Your task to perform on an android device: check battery use Image 0: 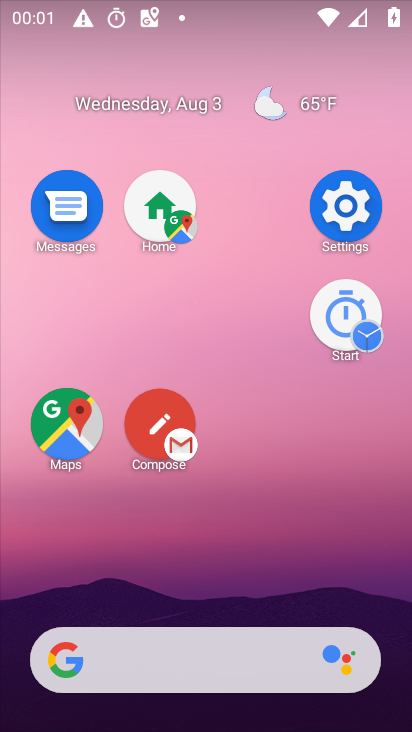
Step 0: drag from (247, 647) to (205, 77)
Your task to perform on an android device: check battery use Image 1: 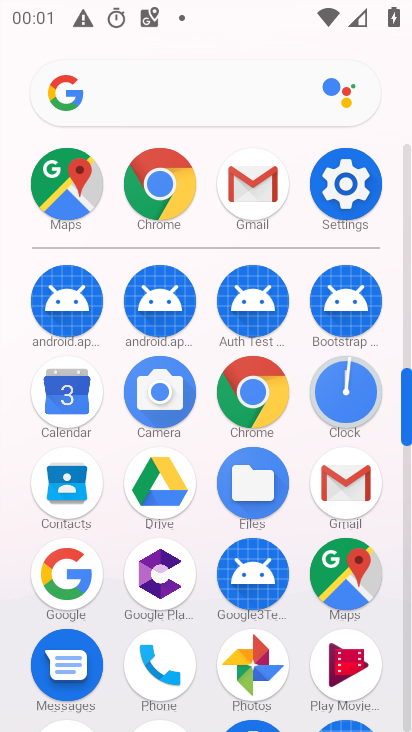
Step 1: click (349, 177)
Your task to perform on an android device: check battery use Image 2: 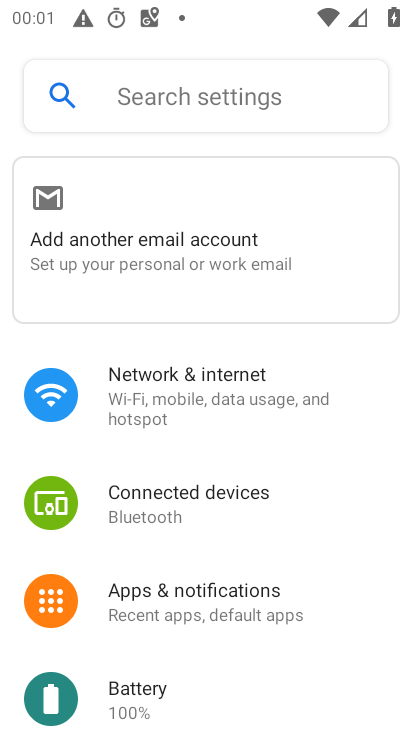
Step 2: click (144, 681)
Your task to perform on an android device: check battery use Image 3: 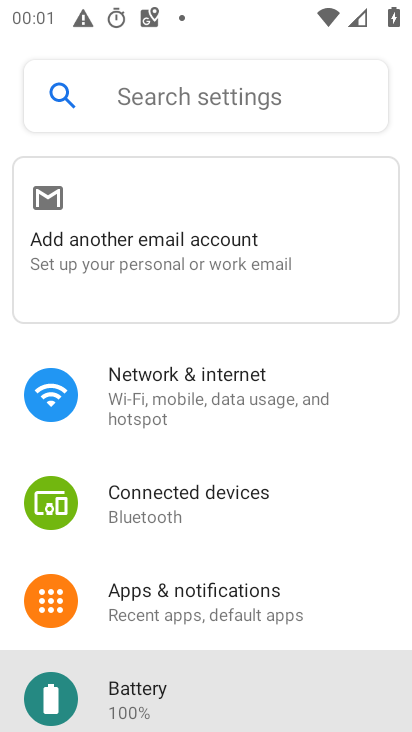
Step 3: click (144, 681)
Your task to perform on an android device: check battery use Image 4: 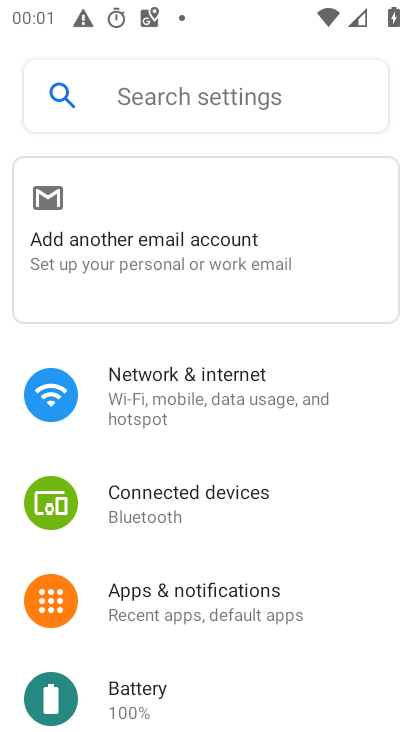
Step 4: click (144, 681)
Your task to perform on an android device: check battery use Image 5: 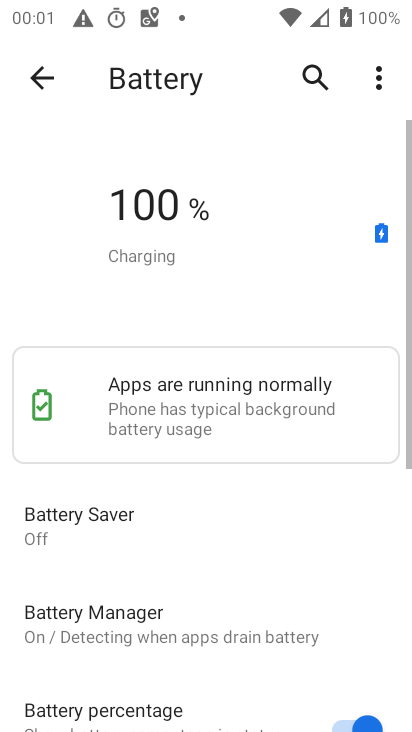
Step 5: task complete